Your task to perform on an android device: Go to internet settings Image 0: 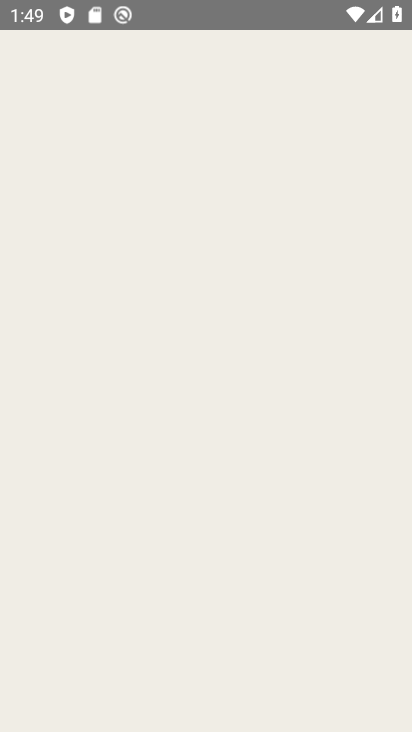
Step 0: click (233, 132)
Your task to perform on an android device: Go to internet settings Image 1: 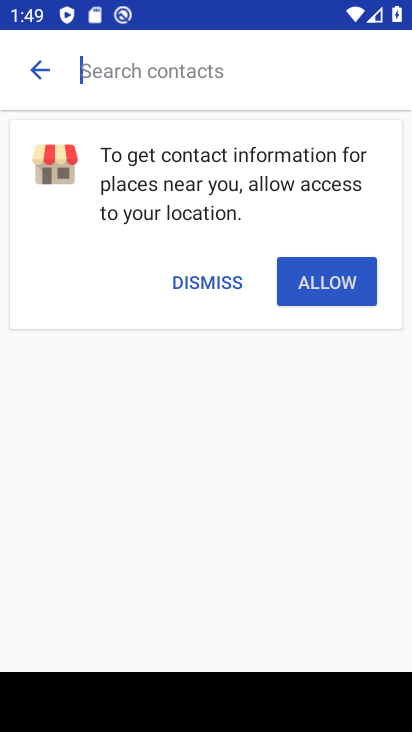
Step 1: press home button
Your task to perform on an android device: Go to internet settings Image 2: 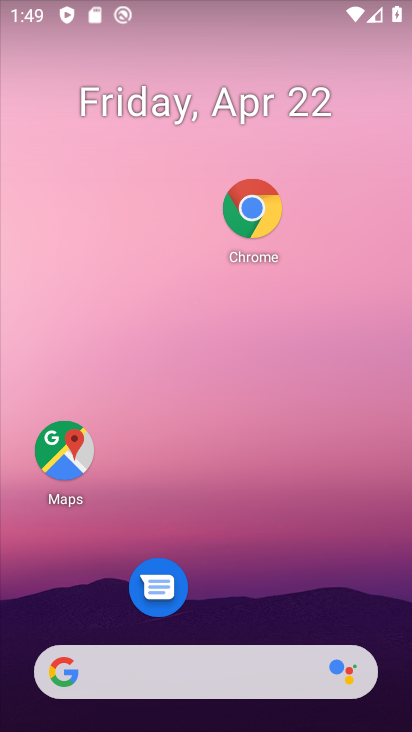
Step 2: drag from (222, 607) to (265, 167)
Your task to perform on an android device: Go to internet settings Image 3: 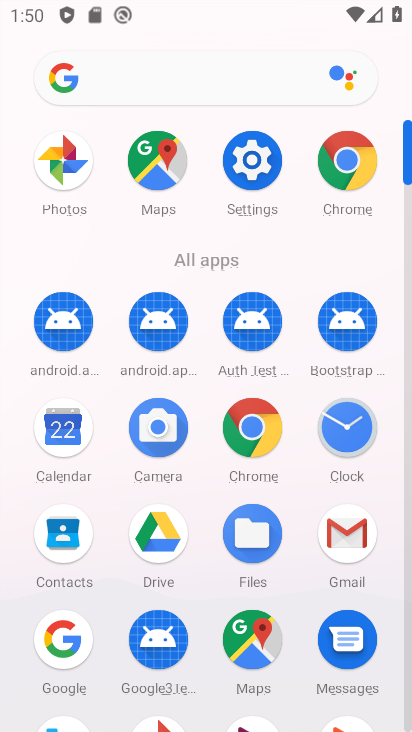
Step 3: click (251, 172)
Your task to perform on an android device: Go to internet settings Image 4: 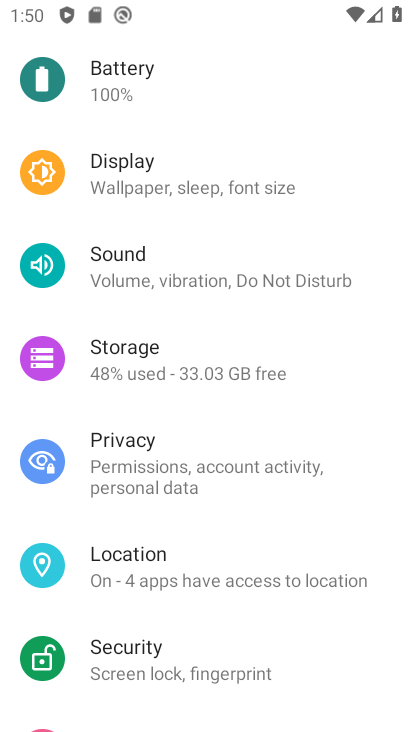
Step 4: drag from (240, 293) to (249, 581)
Your task to perform on an android device: Go to internet settings Image 5: 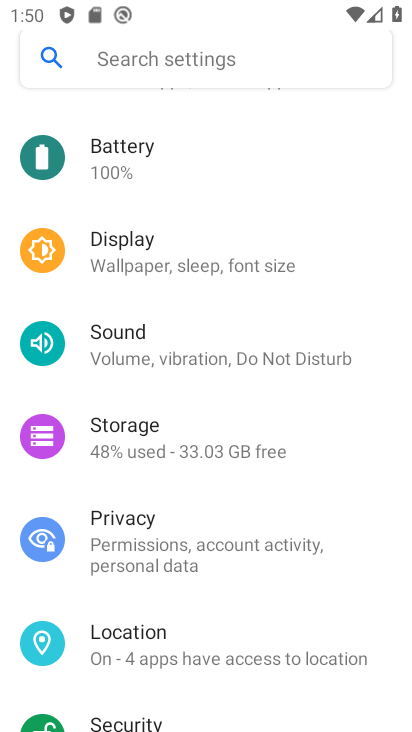
Step 5: drag from (165, 196) to (287, 550)
Your task to perform on an android device: Go to internet settings Image 6: 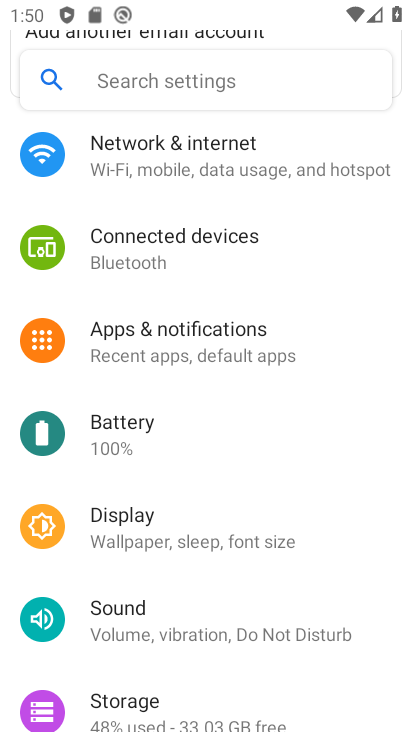
Step 6: drag from (171, 224) to (309, 566)
Your task to perform on an android device: Go to internet settings Image 7: 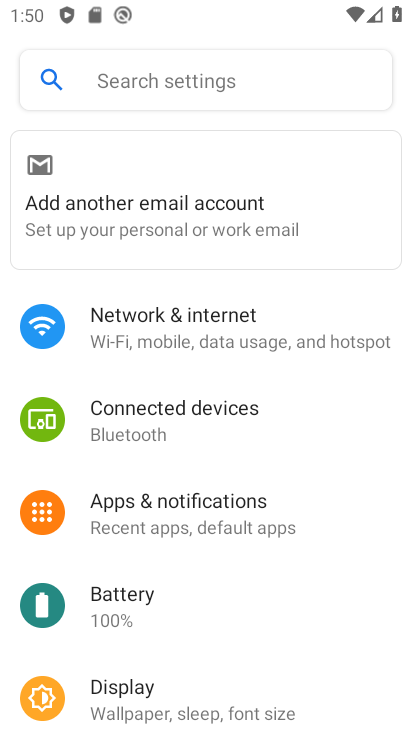
Step 7: click (211, 313)
Your task to perform on an android device: Go to internet settings Image 8: 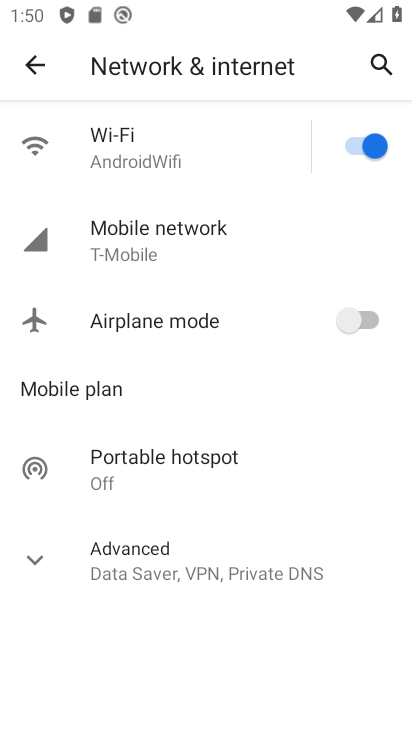
Step 8: task complete